Your task to perform on an android device: Open Amazon Image 0: 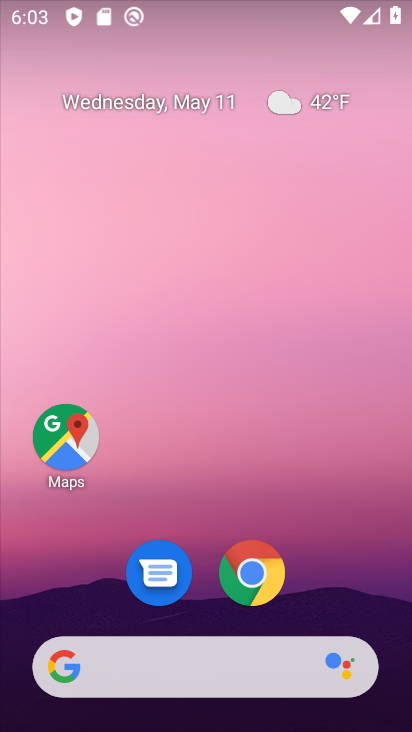
Step 0: drag from (274, 448) to (243, 299)
Your task to perform on an android device: Open Amazon Image 1: 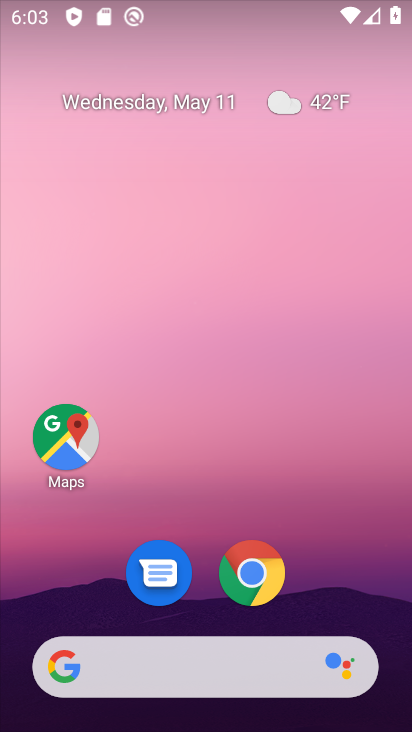
Step 1: click (243, 572)
Your task to perform on an android device: Open Amazon Image 2: 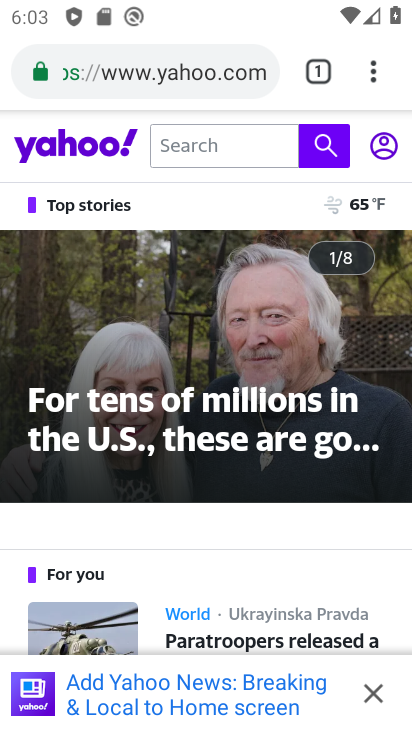
Step 2: press back button
Your task to perform on an android device: Open Amazon Image 3: 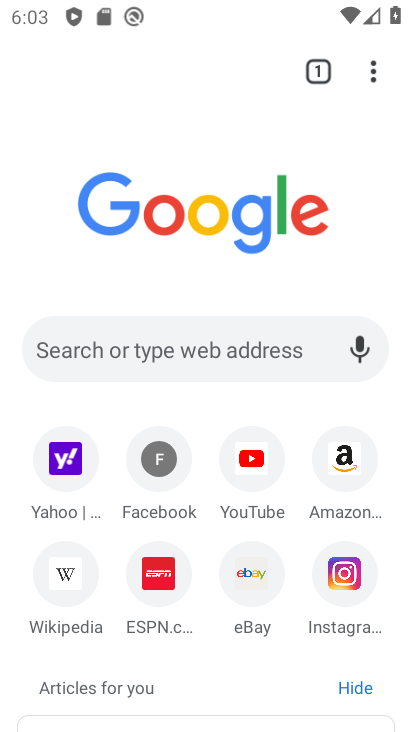
Step 3: click (350, 460)
Your task to perform on an android device: Open Amazon Image 4: 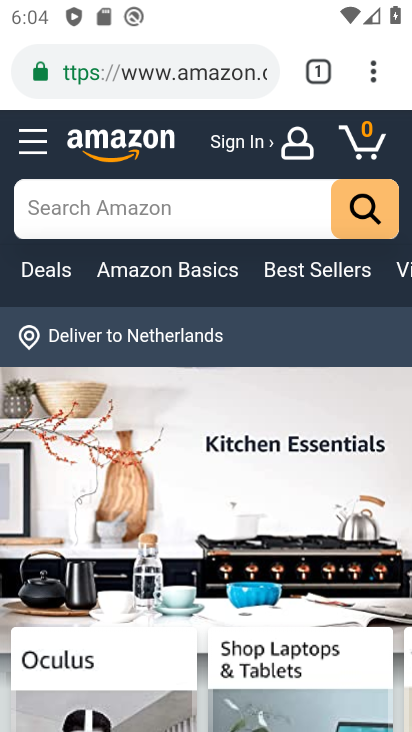
Step 4: task complete